Your task to perform on an android device: Open the calendar app, open the side menu, and click the "Day" option Image 0: 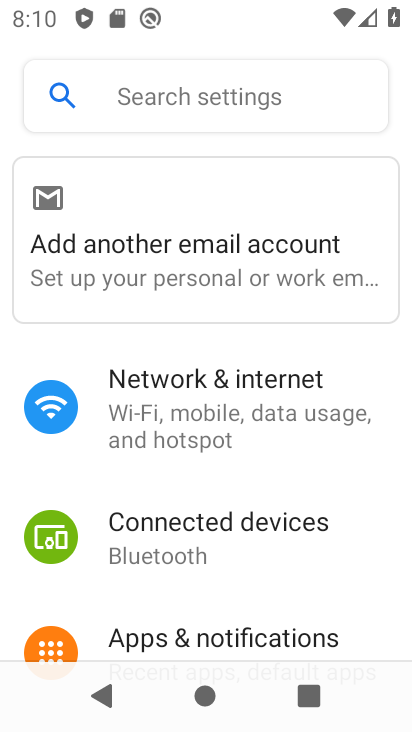
Step 0: press home button
Your task to perform on an android device: Open the calendar app, open the side menu, and click the "Day" option Image 1: 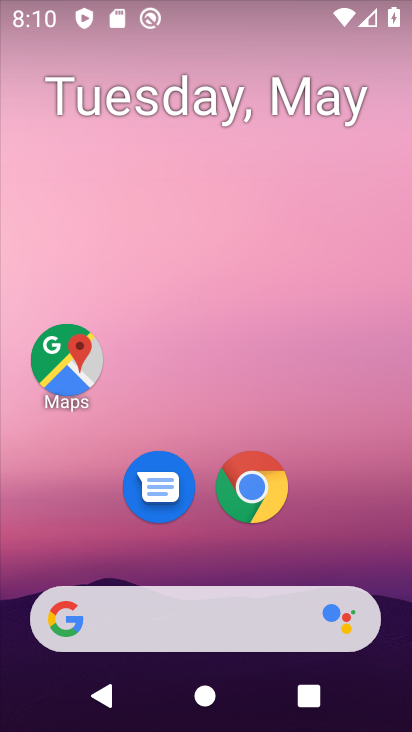
Step 1: drag from (204, 399) to (181, 37)
Your task to perform on an android device: Open the calendar app, open the side menu, and click the "Day" option Image 2: 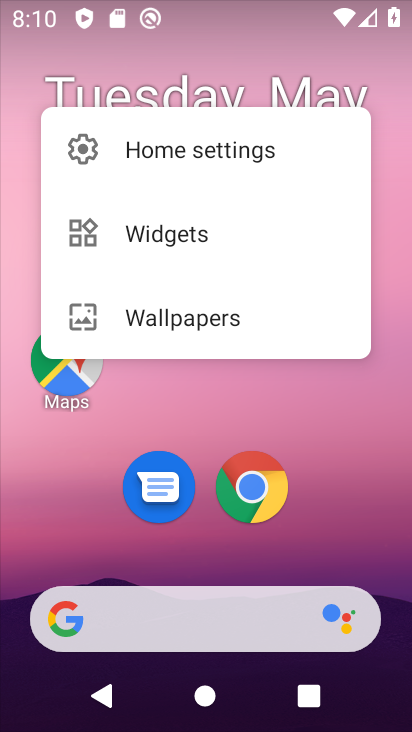
Step 2: click (367, 528)
Your task to perform on an android device: Open the calendar app, open the side menu, and click the "Day" option Image 3: 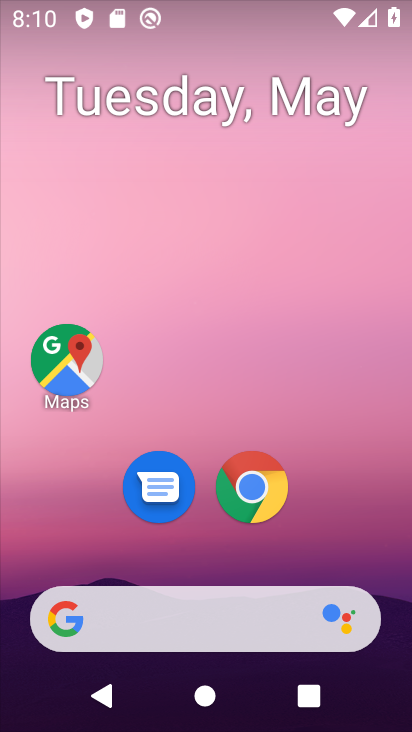
Step 3: drag from (367, 528) to (295, 10)
Your task to perform on an android device: Open the calendar app, open the side menu, and click the "Day" option Image 4: 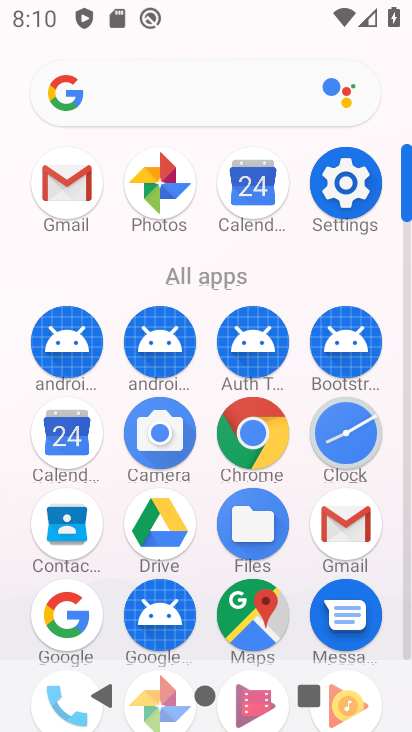
Step 4: click (230, 180)
Your task to perform on an android device: Open the calendar app, open the side menu, and click the "Day" option Image 5: 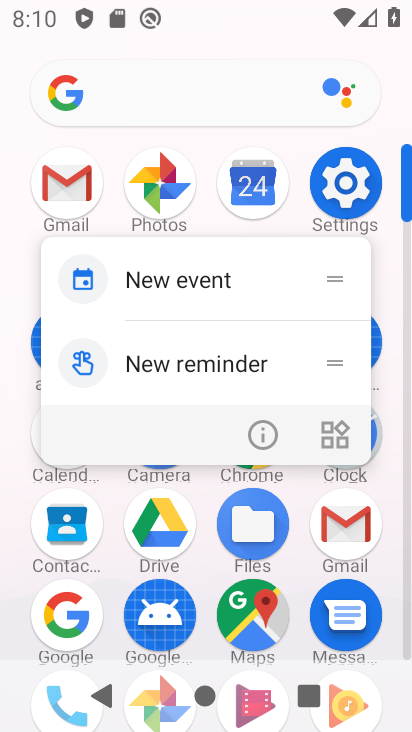
Step 5: click (247, 164)
Your task to perform on an android device: Open the calendar app, open the side menu, and click the "Day" option Image 6: 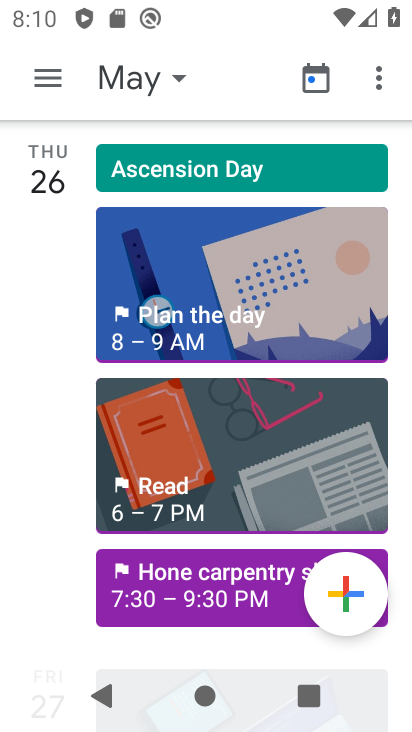
Step 6: click (47, 79)
Your task to perform on an android device: Open the calendar app, open the side menu, and click the "Day" option Image 7: 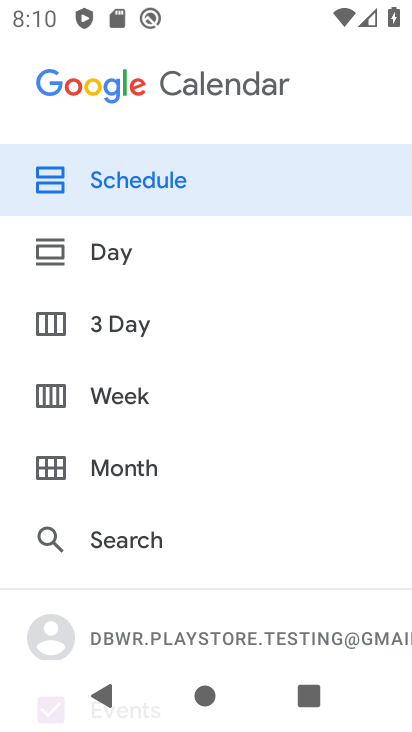
Step 7: click (79, 246)
Your task to perform on an android device: Open the calendar app, open the side menu, and click the "Day" option Image 8: 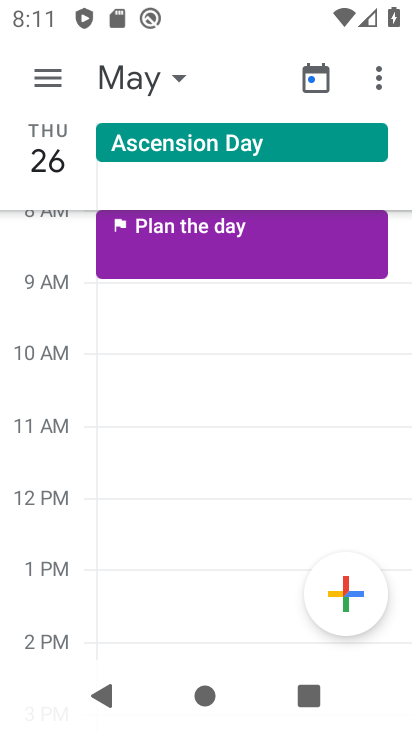
Step 8: task complete